Your task to perform on an android device: toggle priority inbox in the gmail app Image 0: 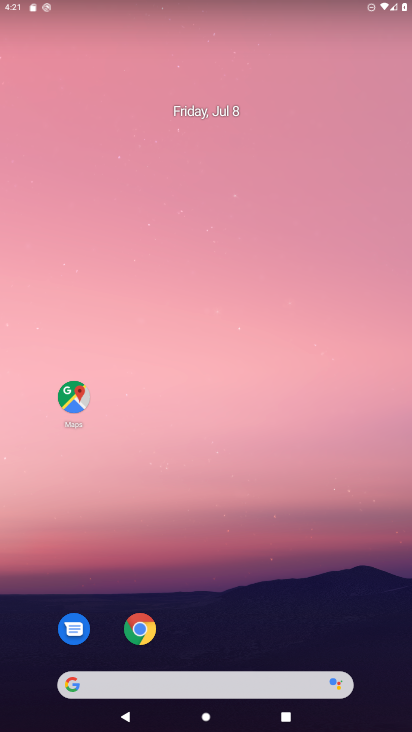
Step 0: drag from (294, 642) to (265, 221)
Your task to perform on an android device: toggle priority inbox in the gmail app Image 1: 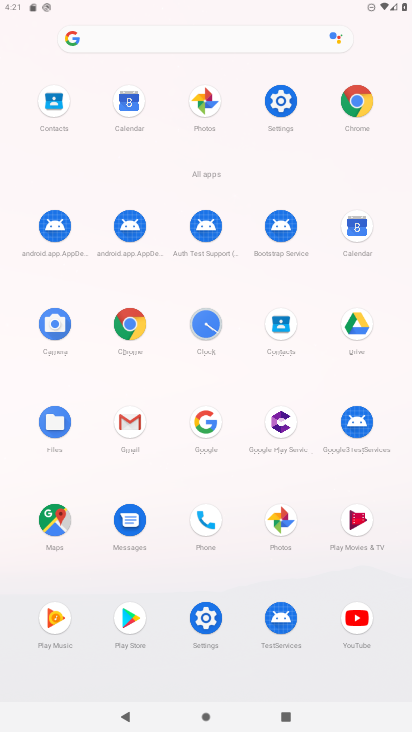
Step 1: click (122, 434)
Your task to perform on an android device: toggle priority inbox in the gmail app Image 2: 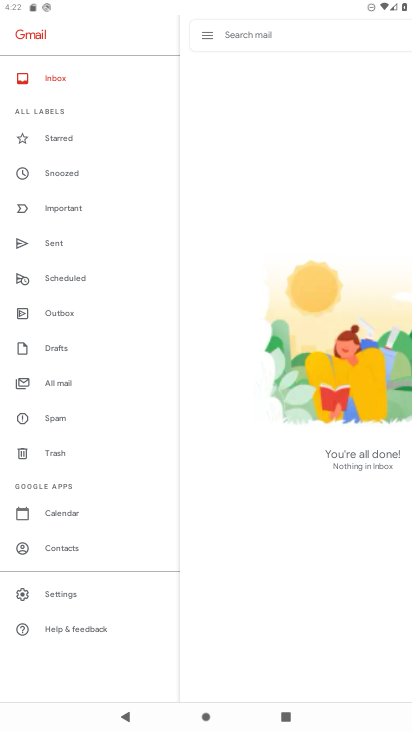
Step 2: click (46, 588)
Your task to perform on an android device: toggle priority inbox in the gmail app Image 3: 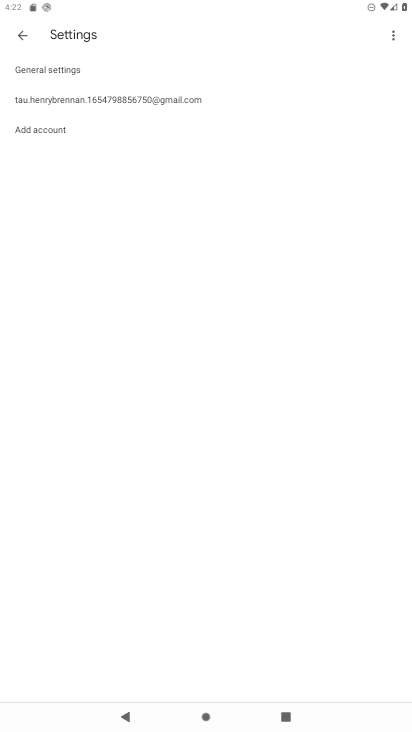
Step 3: click (191, 111)
Your task to perform on an android device: toggle priority inbox in the gmail app Image 4: 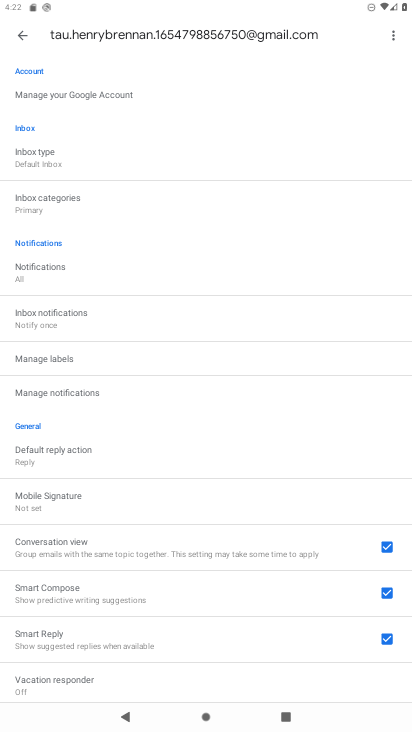
Step 4: click (99, 161)
Your task to perform on an android device: toggle priority inbox in the gmail app Image 5: 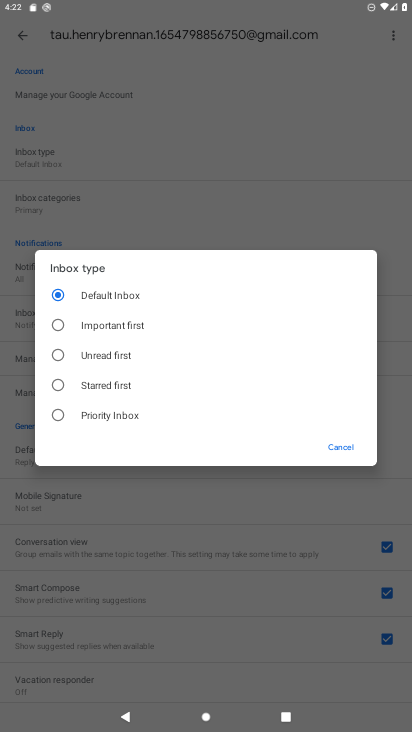
Step 5: click (93, 412)
Your task to perform on an android device: toggle priority inbox in the gmail app Image 6: 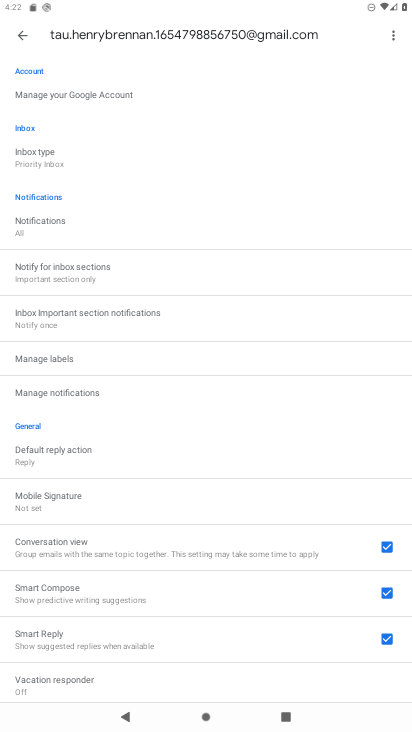
Step 6: task complete